Your task to perform on an android device: move a message to another label in the gmail app Image 0: 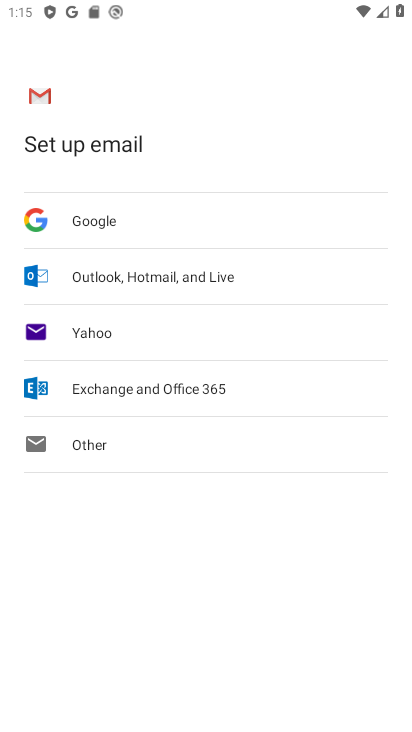
Step 0: press home button
Your task to perform on an android device: move a message to another label in the gmail app Image 1: 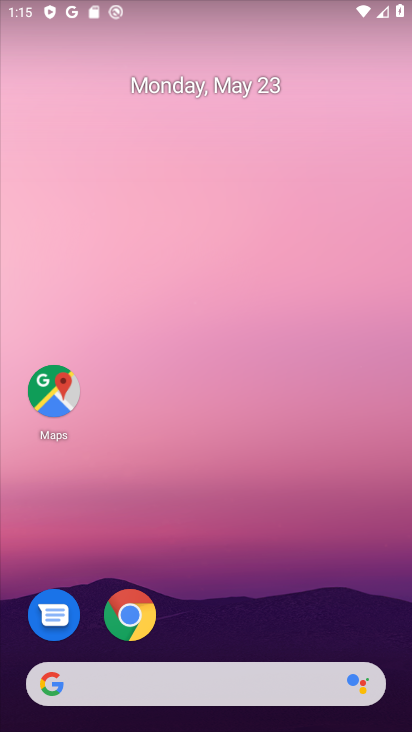
Step 1: drag from (185, 644) to (305, 1)
Your task to perform on an android device: move a message to another label in the gmail app Image 2: 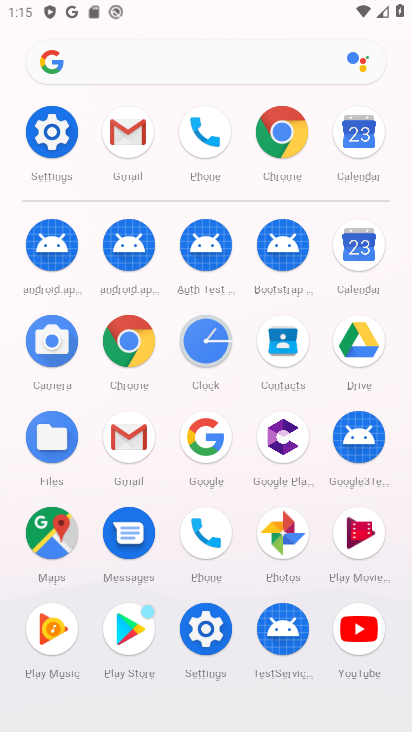
Step 2: click (142, 423)
Your task to perform on an android device: move a message to another label in the gmail app Image 3: 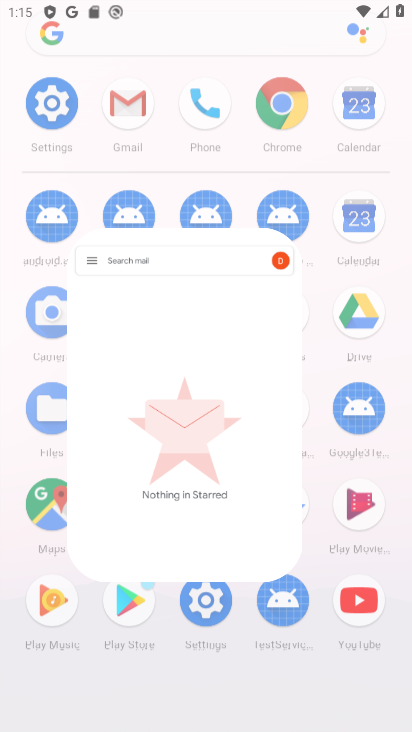
Step 3: click (142, 423)
Your task to perform on an android device: move a message to another label in the gmail app Image 4: 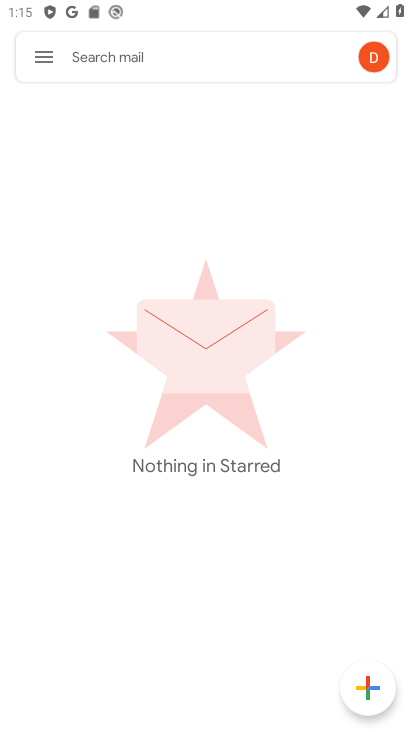
Step 4: click (46, 62)
Your task to perform on an android device: move a message to another label in the gmail app Image 5: 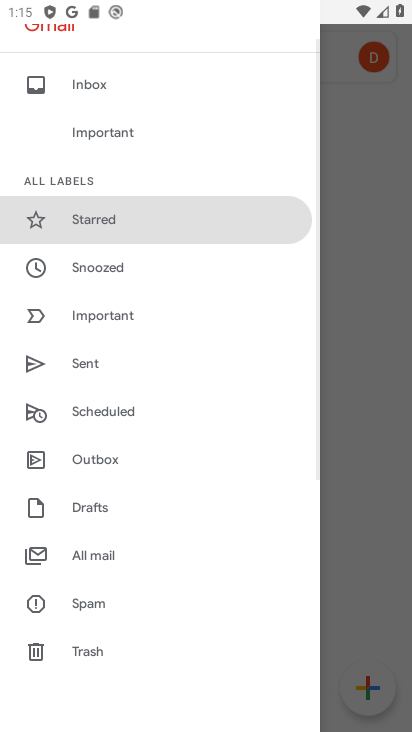
Step 5: click (119, 208)
Your task to perform on an android device: move a message to another label in the gmail app Image 6: 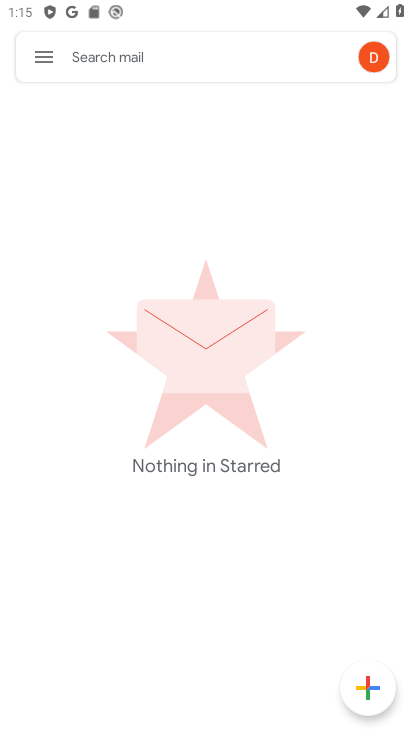
Step 6: task complete